Your task to perform on an android device: Open internet settings Image 0: 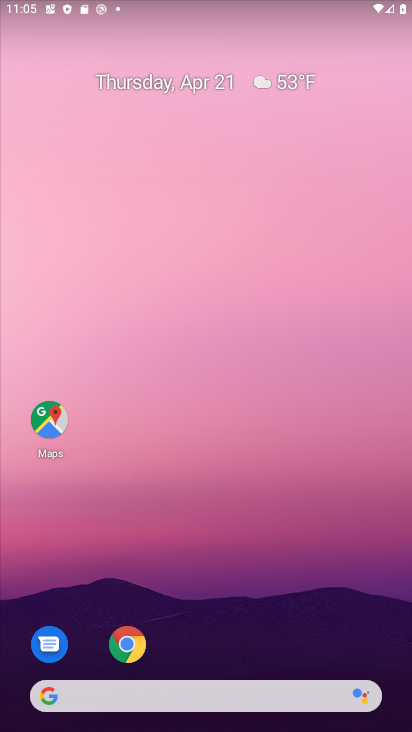
Step 0: drag from (267, 647) to (267, 233)
Your task to perform on an android device: Open internet settings Image 1: 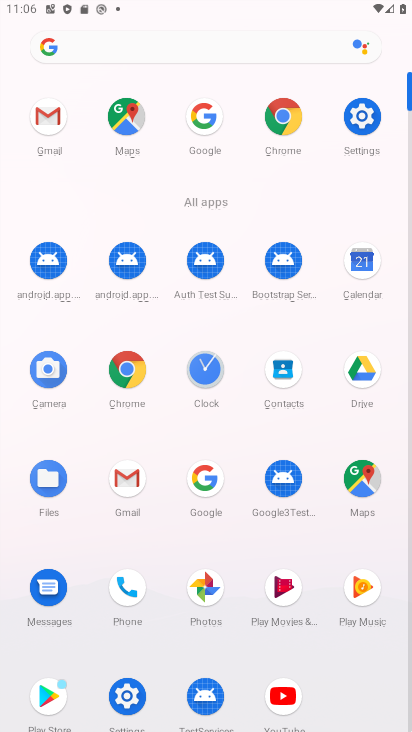
Step 1: click (363, 115)
Your task to perform on an android device: Open internet settings Image 2: 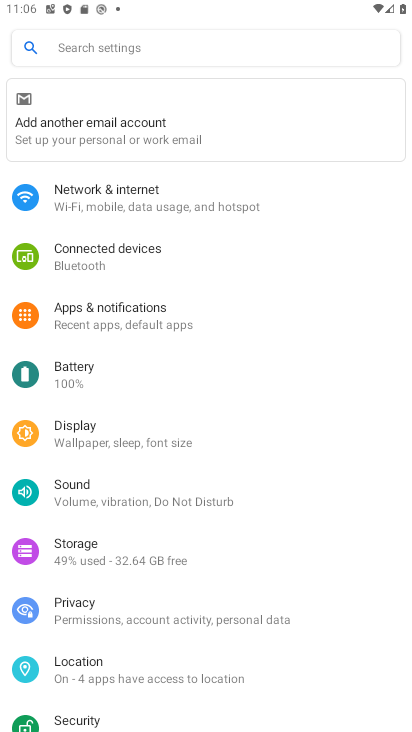
Step 2: click (286, 195)
Your task to perform on an android device: Open internet settings Image 3: 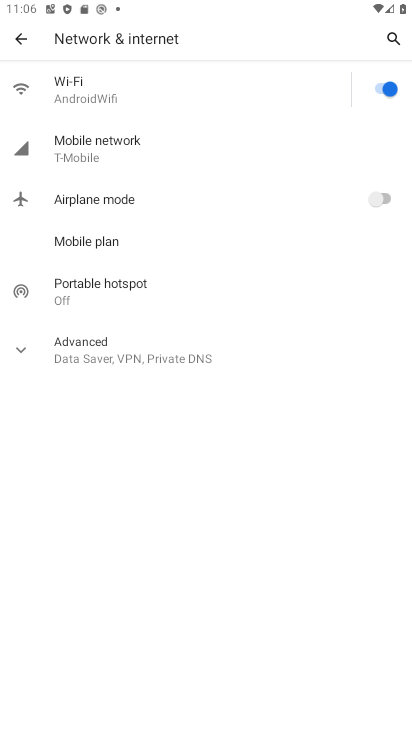
Step 3: task complete